Your task to perform on an android device: turn on javascript in the chrome app Image 0: 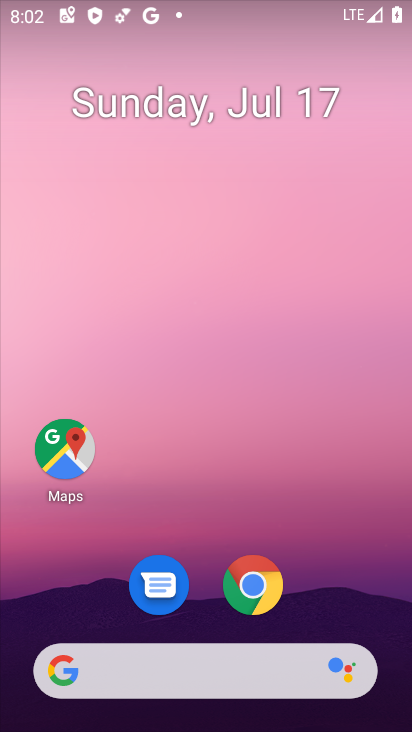
Step 0: click (271, 595)
Your task to perform on an android device: turn on javascript in the chrome app Image 1: 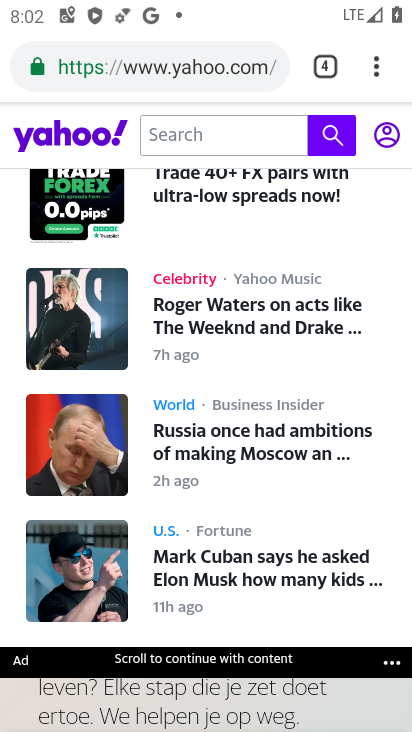
Step 1: click (376, 68)
Your task to perform on an android device: turn on javascript in the chrome app Image 2: 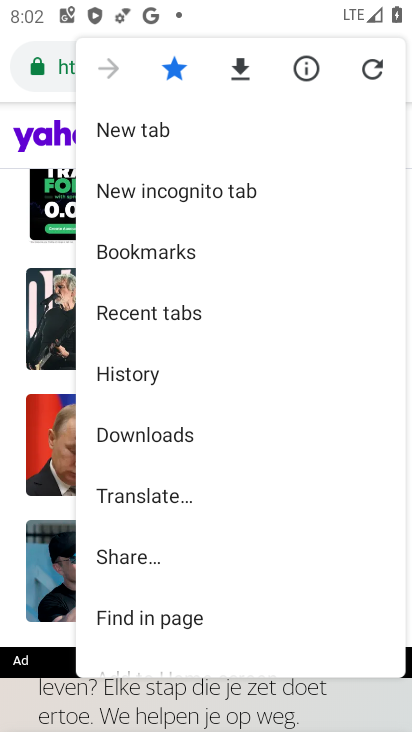
Step 2: drag from (284, 514) to (276, 176)
Your task to perform on an android device: turn on javascript in the chrome app Image 3: 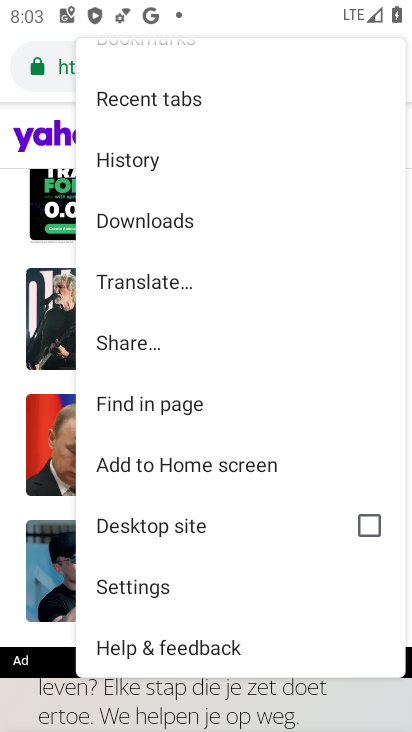
Step 3: click (154, 586)
Your task to perform on an android device: turn on javascript in the chrome app Image 4: 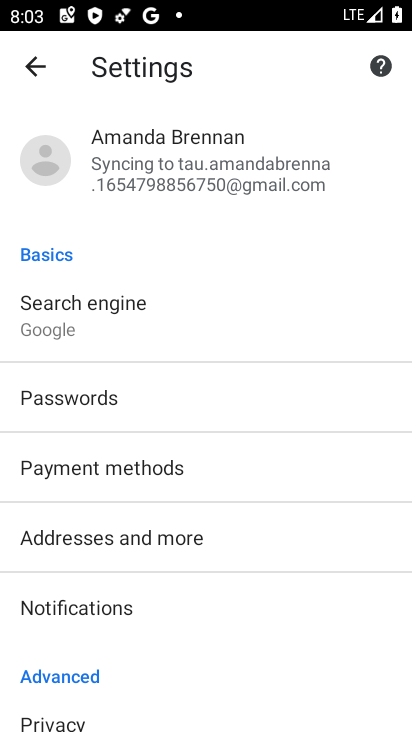
Step 4: drag from (242, 537) to (259, 239)
Your task to perform on an android device: turn on javascript in the chrome app Image 5: 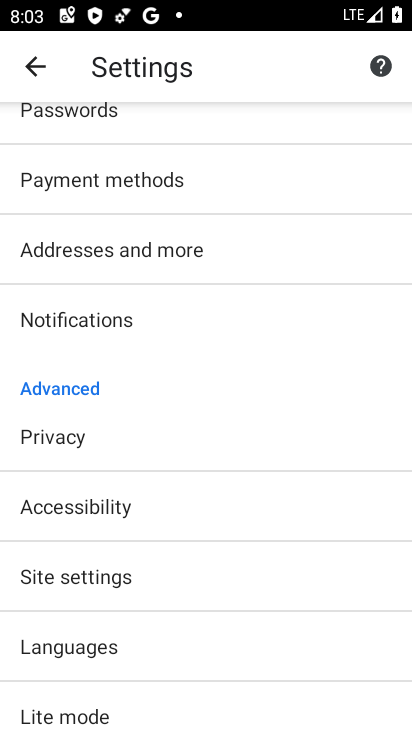
Step 5: click (112, 577)
Your task to perform on an android device: turn on javascript in the chrome app Image 6: 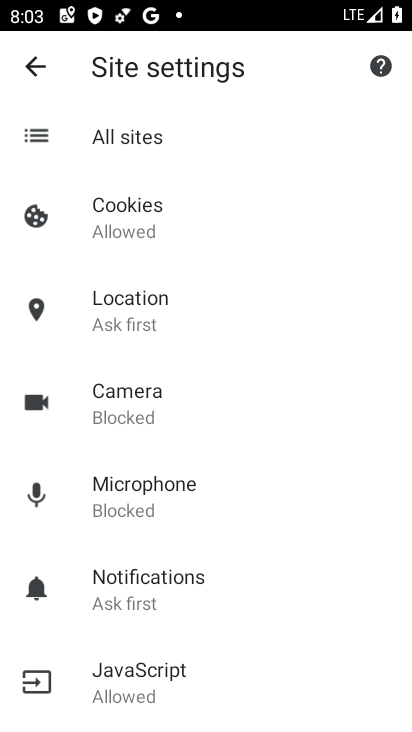
Step 6: click (182, 674)
Your task to perform on an android device: turn on javascript in the chrome app Image 7: 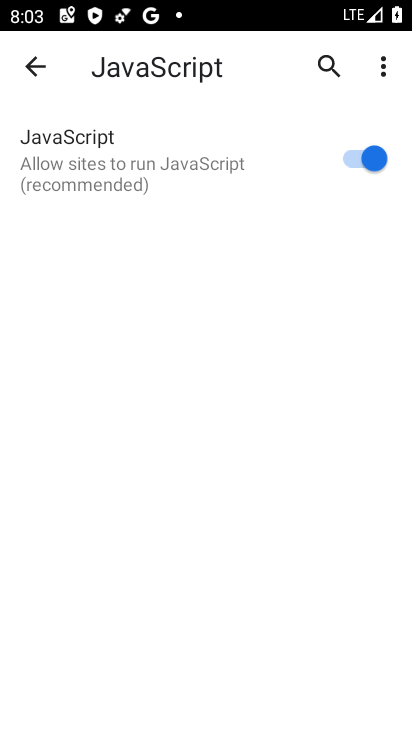
Step 7: task complete